Your task to perform on an android device: Open wifi settings Image 0: 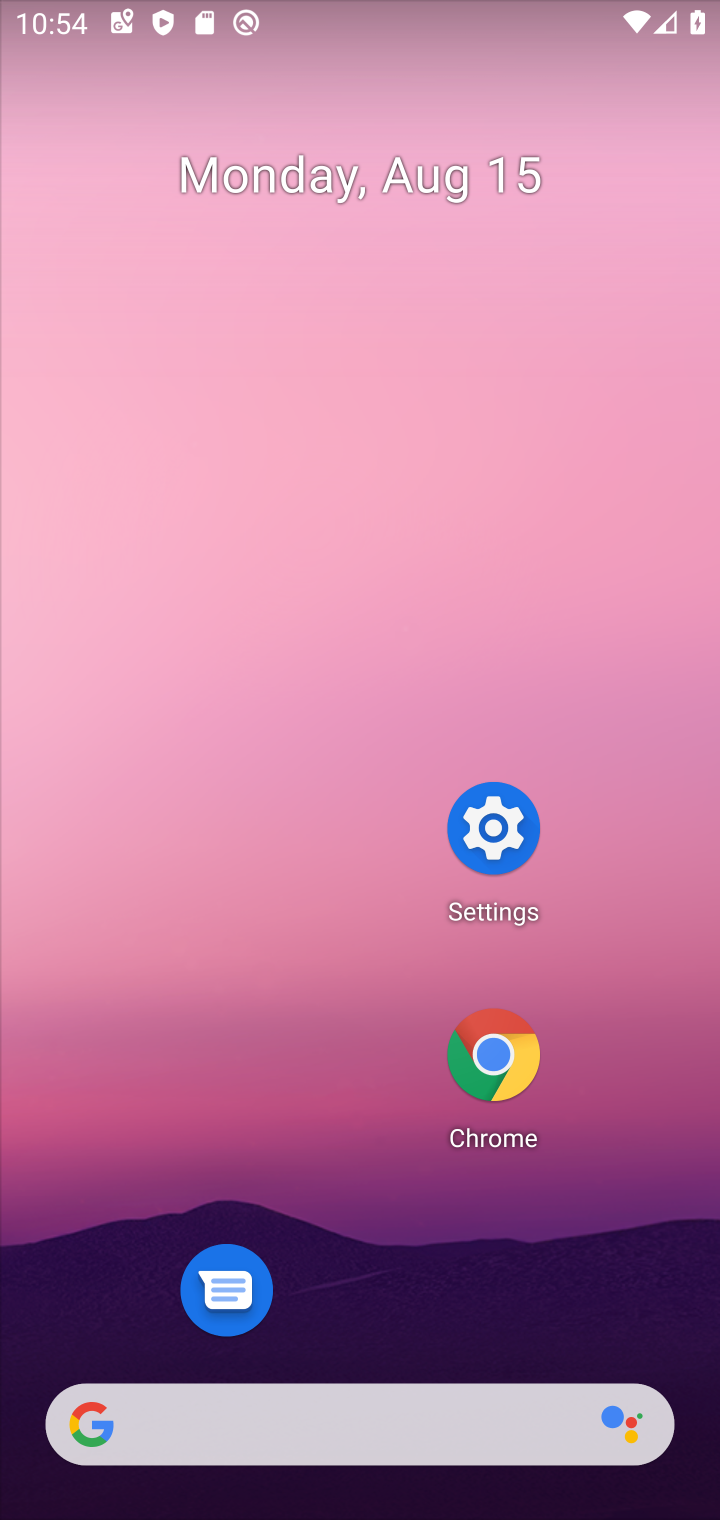
Step 0: click (498, 805)
Your task to perform on an android device: Open wifi settings Image 1: 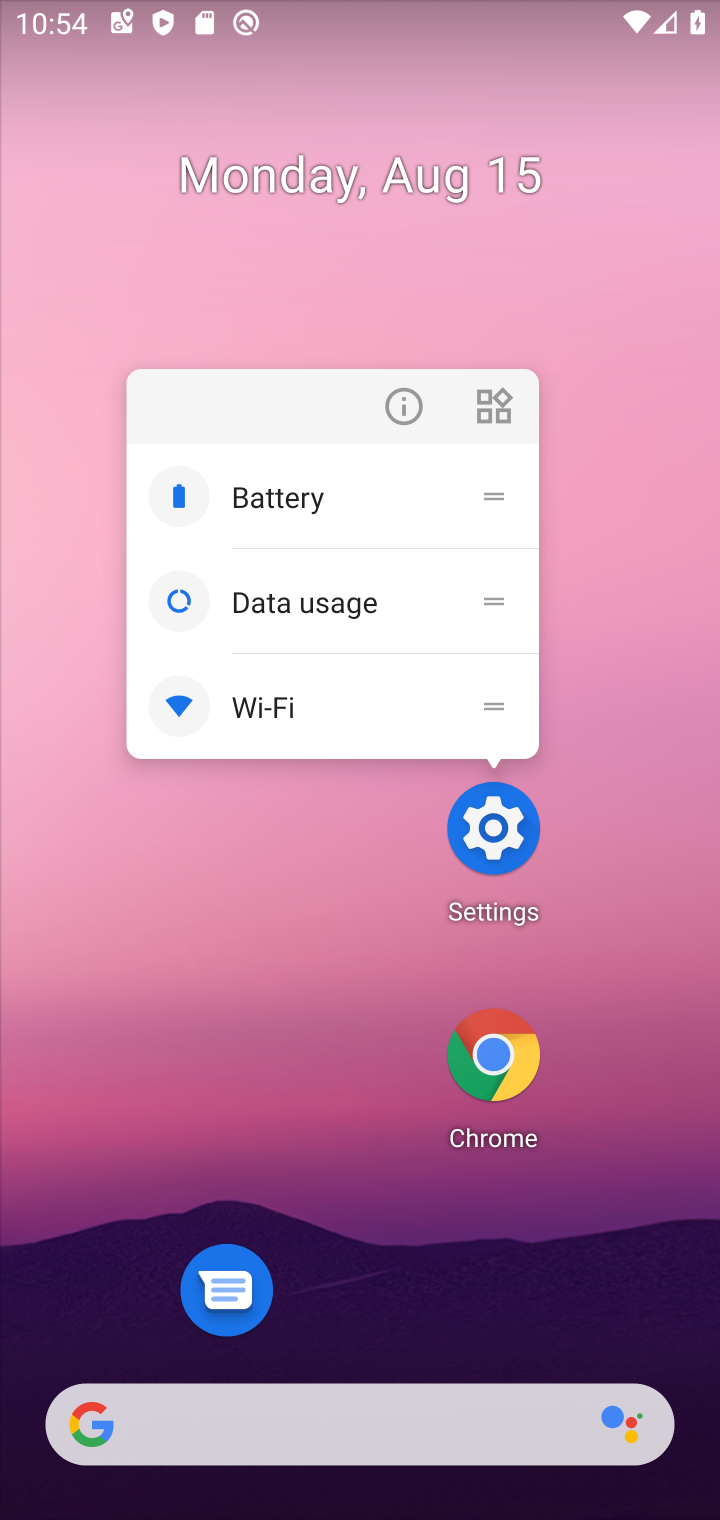
Step 1: click (500, 808)
Your task to perform on an android device: Open wifi settings Image 2: 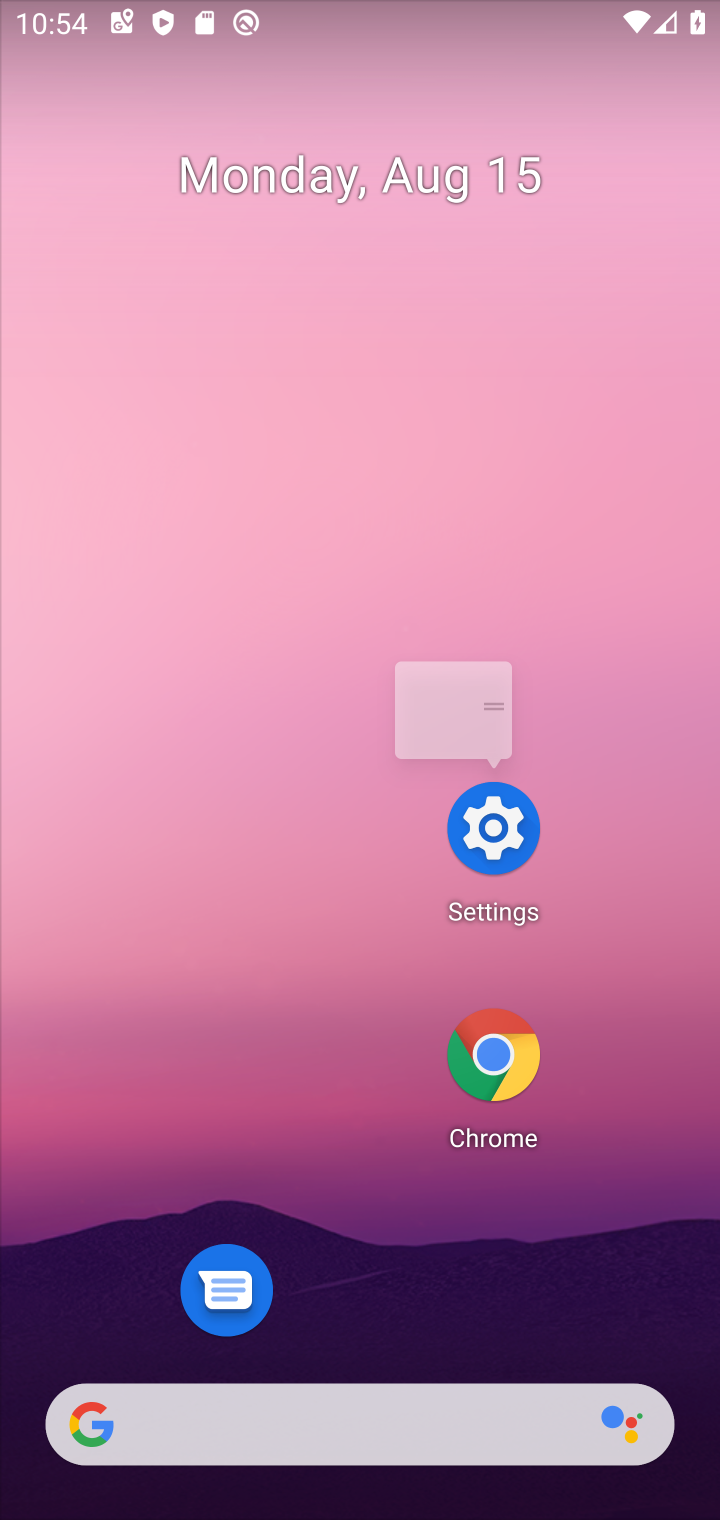
Step 2: click (493, 810)
Your task to perform on an android device: Open wifi settings Image 3: 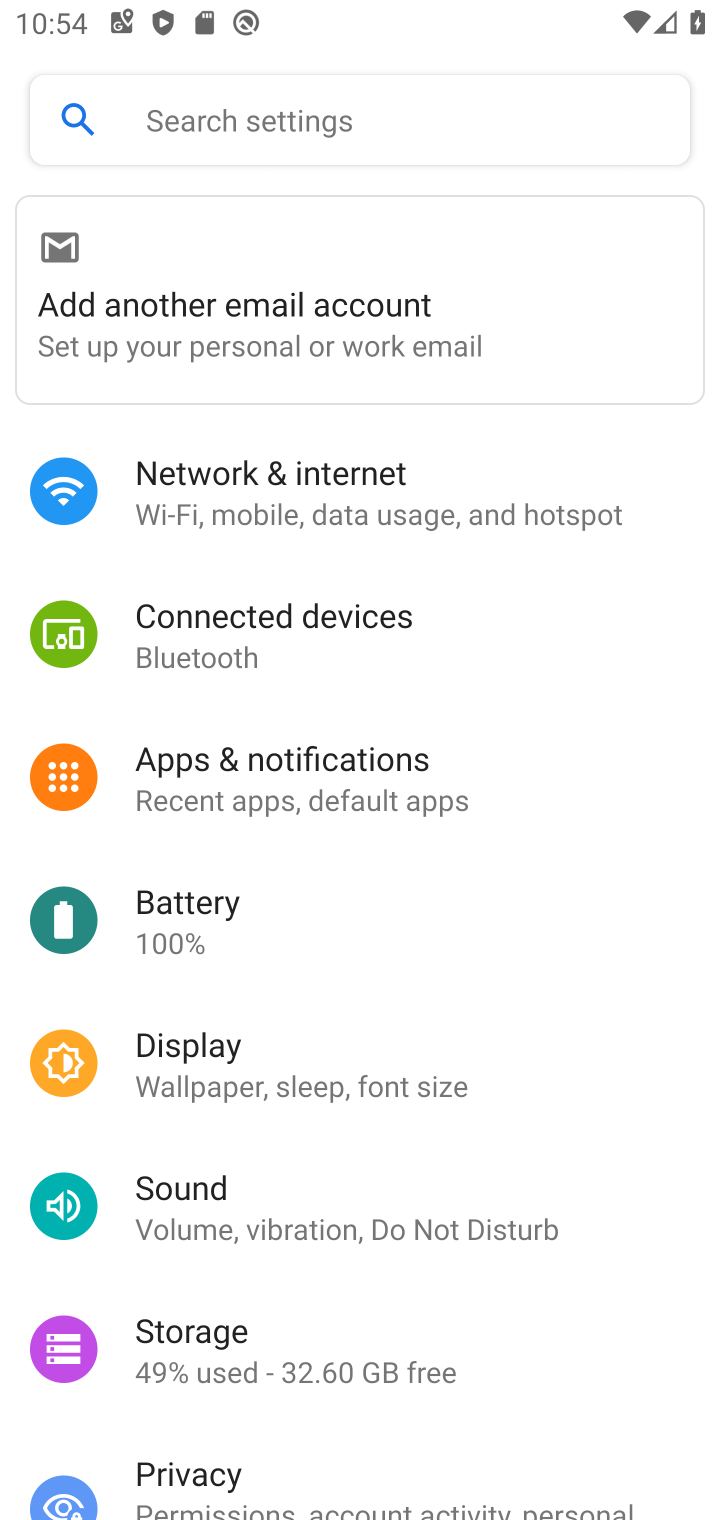
Step 3: click (306, 496)
Your task to perform on an android device: Open wifi settings Image 4: 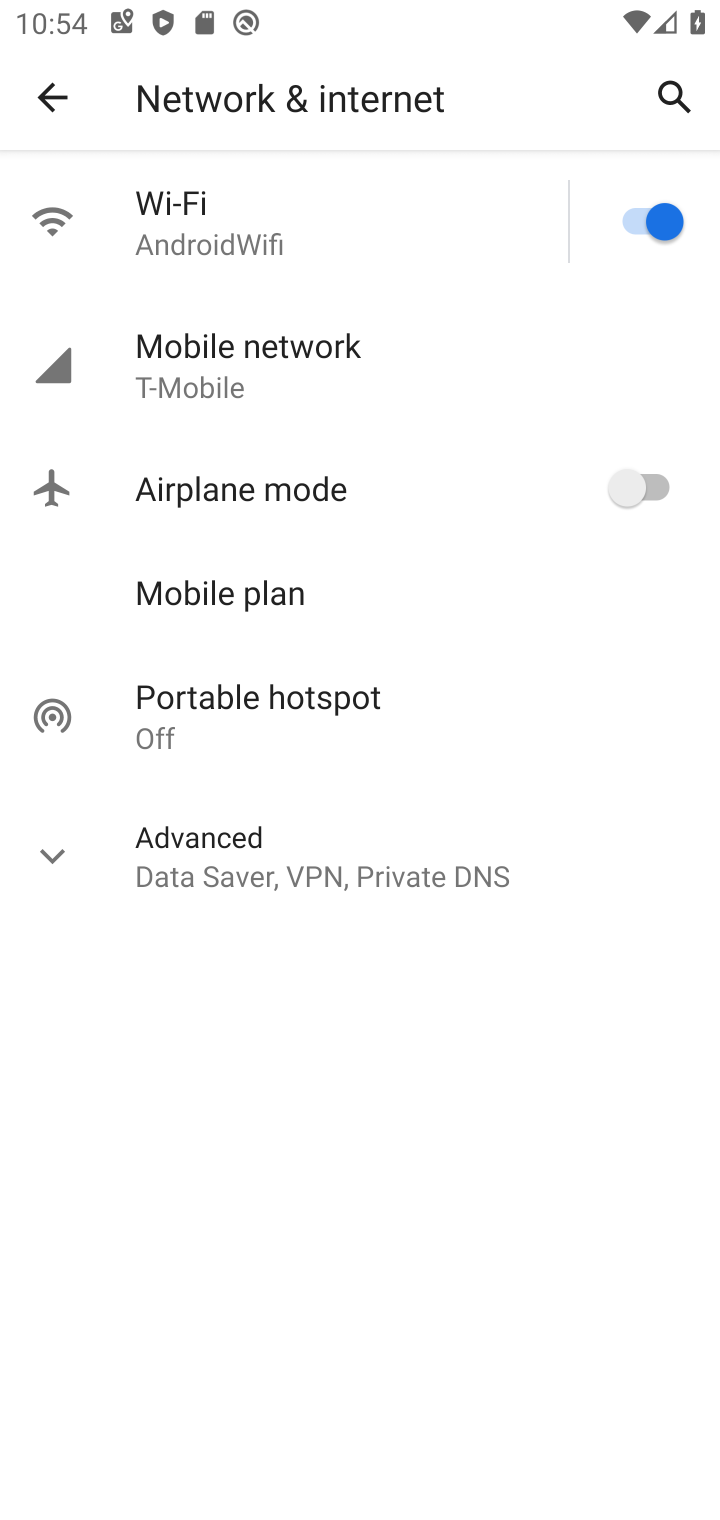
Step 4: click (135, 232)
Your task to perform on an android device: Open wifi settings Image 5: 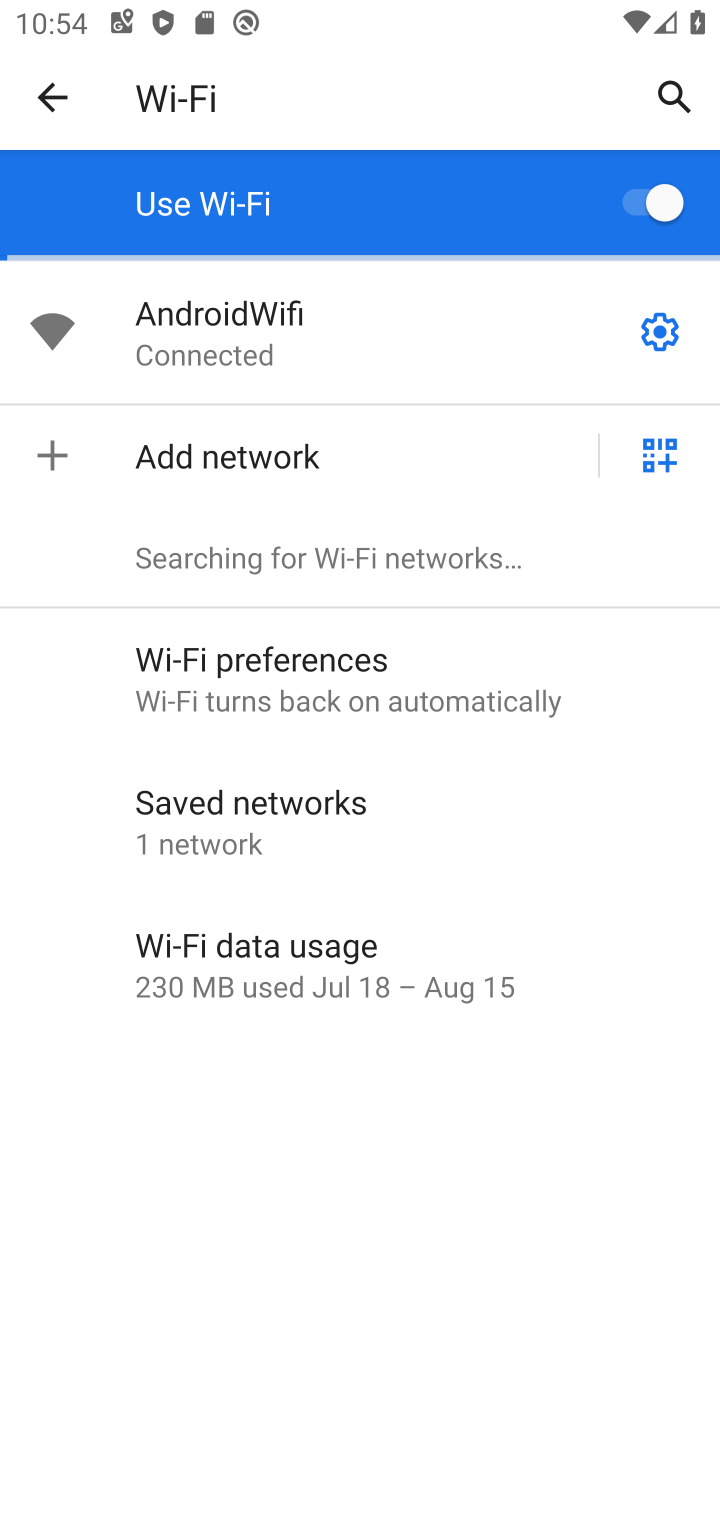
Step 5: task complete